Your task to perform on an android device: turn off location Image 0: 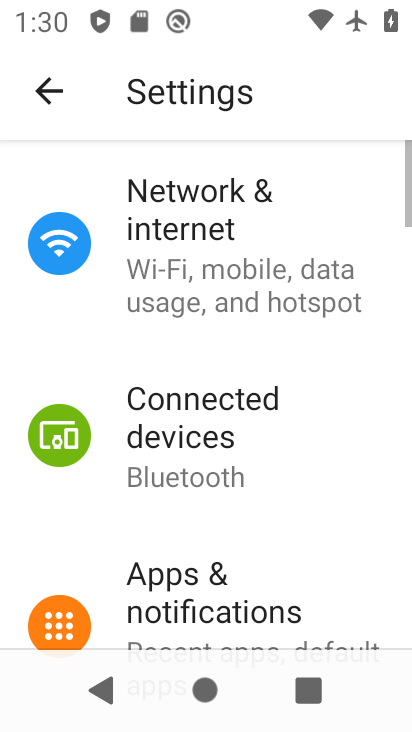
Step 0: press home button
Your task to perform on an android device: turn off location Image 1: 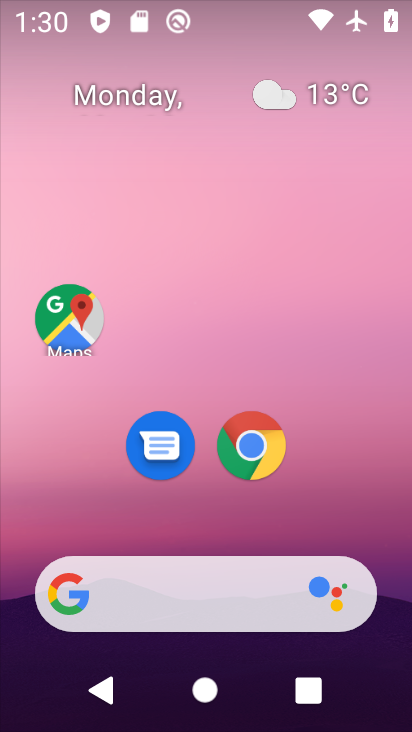
Step 1: drag from (393, 628) to (283, 65)
Your task to perform on an android device: turn off location Image 2: 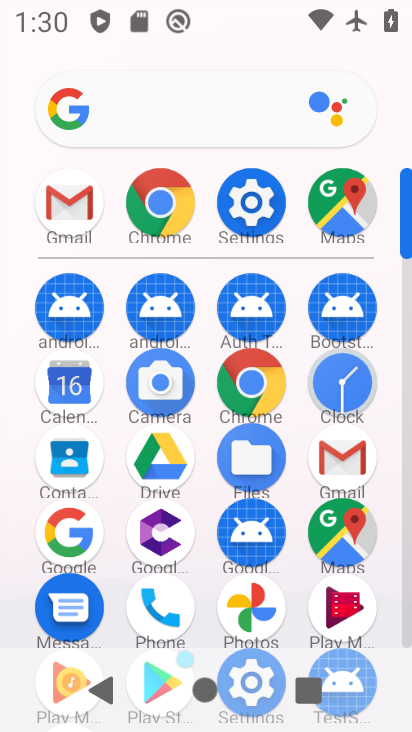
Step 2: click (260, 200)
Your task to perform on an android device: turn off location Image 3: 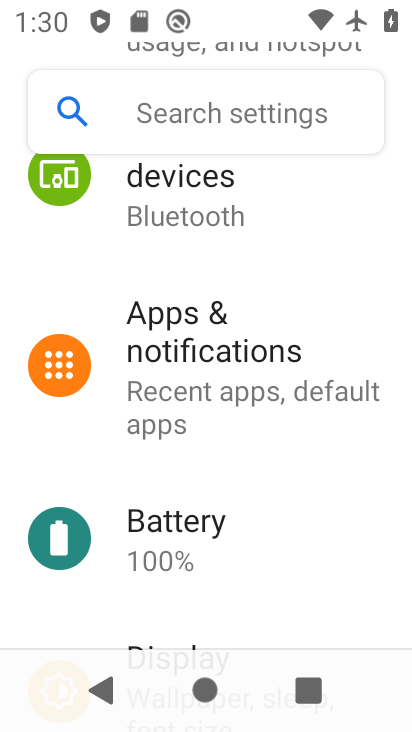
Step 3: drag from (251, 578) to (273, 191)
Your task to perform on an android device: turn off location Image 4: 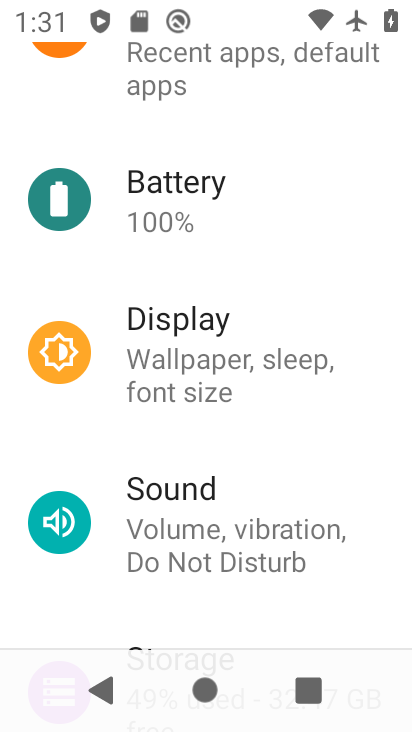
Step 4: drag from (206, 538) to (211, 193)
Your task to perform on an android device: turn off location Image 5: 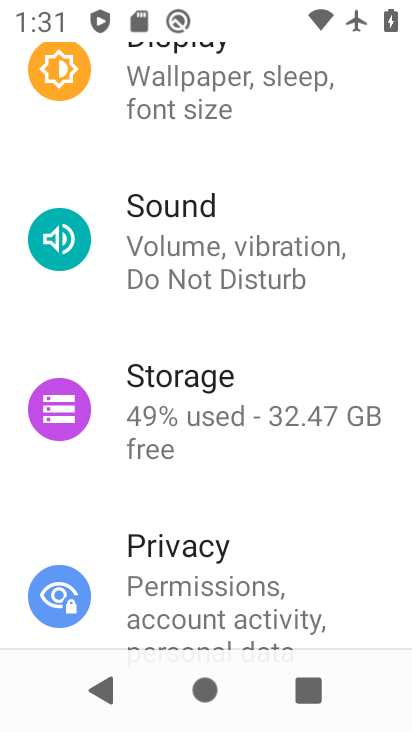
Step 5: drag from (231, 578) to (262, 213)
Your task to perform on an android device: turn off location Image 6: 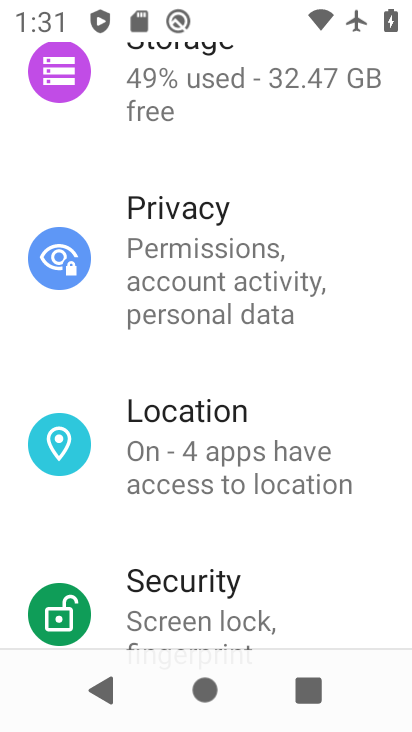
Step 6: click (245, 486)
Your task to perform on an android device: turn off location Image 7: 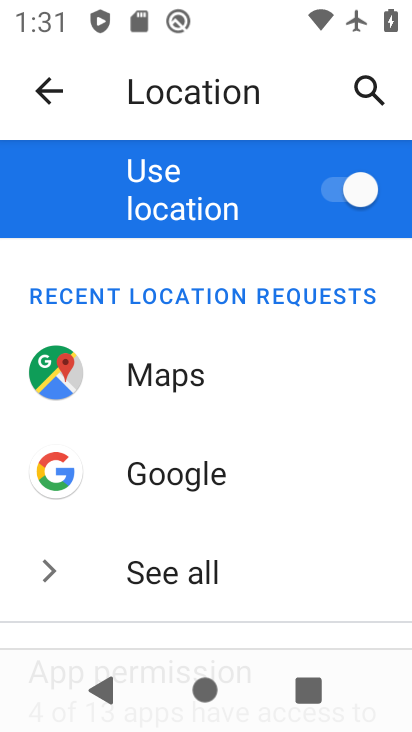
Step 7: click (336, 182)
Your task to perform on an android device: turn off location Image 8: 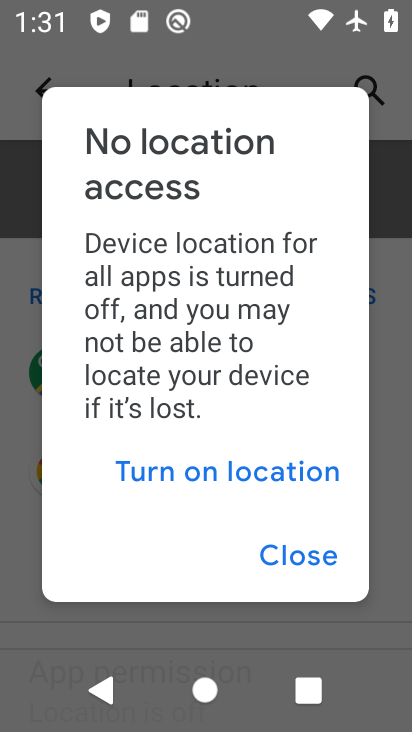
Step 8: task complete